Your task to perform on an android device: change text size in settings app Image 0: 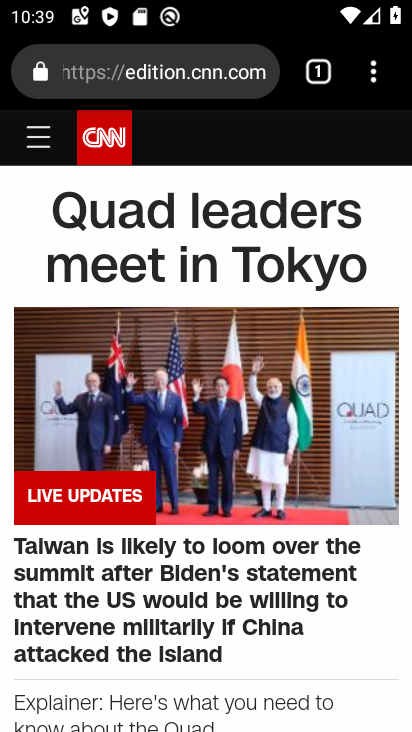
Step 0: press back button
Your task to perform on an android device: change text size in settings app Image 1: 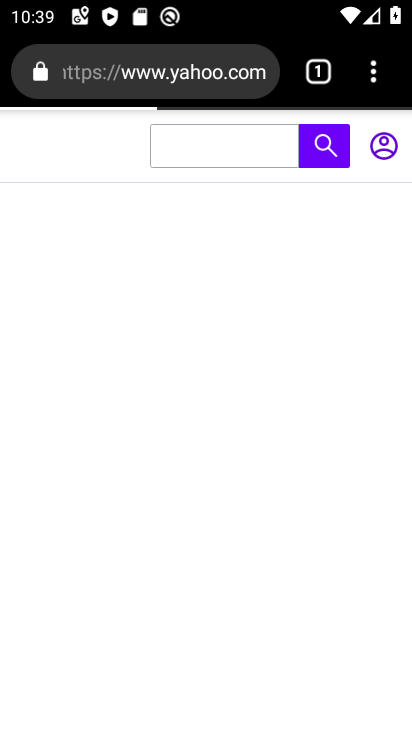
Step 1: press home button
Your task to perform on an android device: change text size in settings app Image 2: 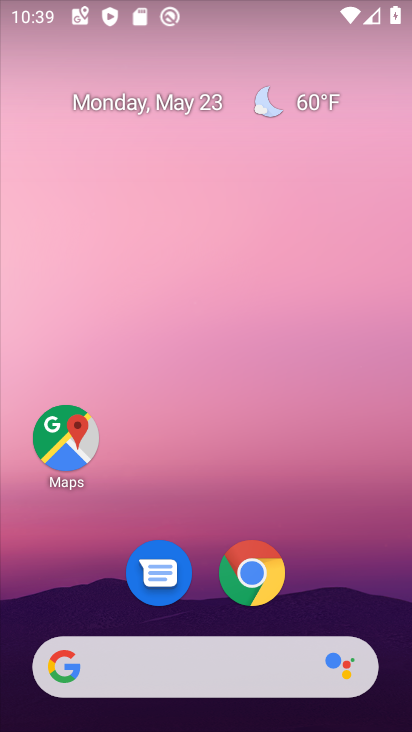
Step 2: drag from (301, 424) to (241, 3)
Your task to perform on an android device: change text size in settings app Image 3: 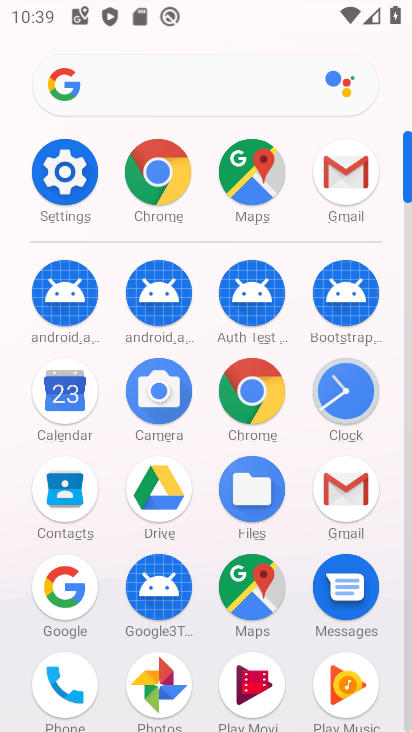
Step 3: drag from (9, 577) to (8, 190)
Your task to perform on an android device: change text size in settings app Image 4: 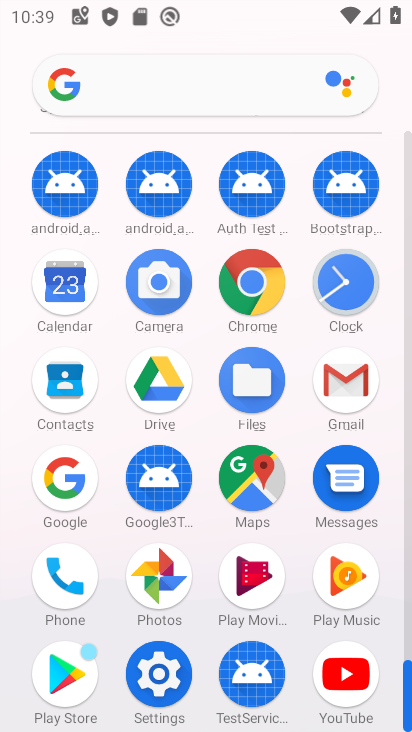
Step 4: click (159, 672)
Your task to perform on an android device: change text size in settings app Image 5: 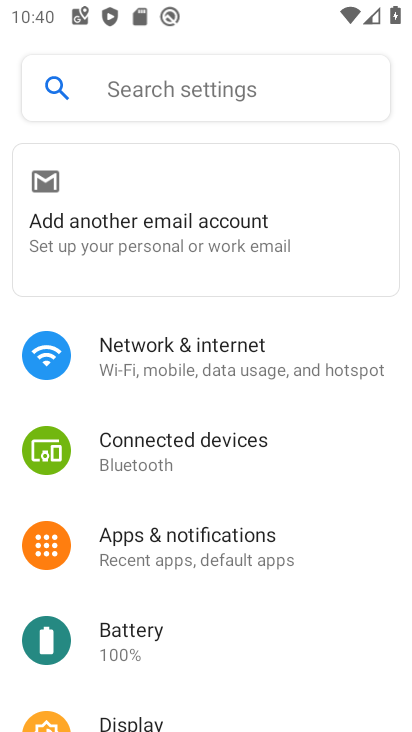
Step 5: drag from (239, 529) to (274, 183)
Your task to perform on an android device: change text size in settings app Image 6: 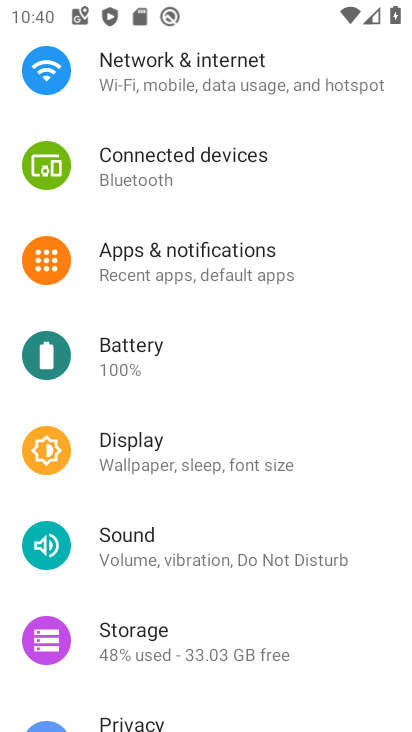
Step 6: click (176, 457)
Your task to perform on an android device: change text size in settings app Image 7: 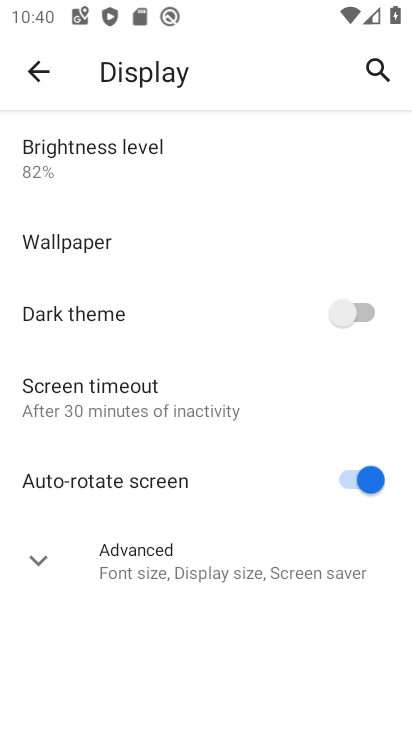
Step 7: click (85, 543)
Your task to perform on an android device: change text size in settings app Image 8: 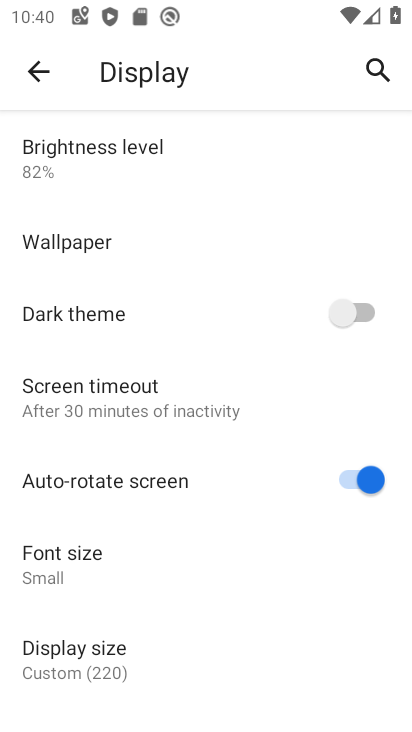
Step 8: click (129, 556)
Your task to perform on an android device: change text size in settings app Image 9: 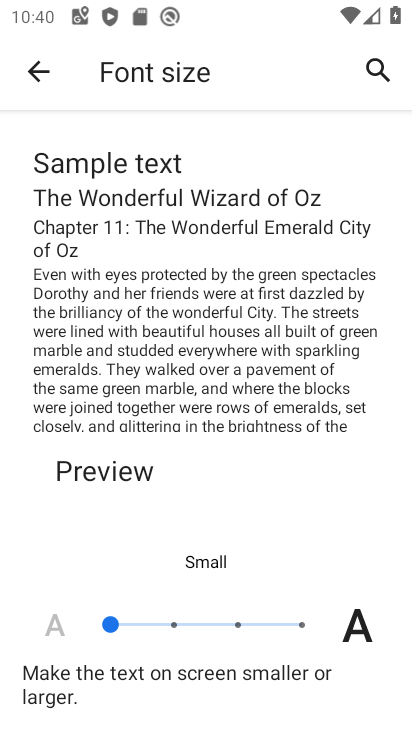
Step 9: click (222, 617)
Your task to perform on an android device: change text size in settings app Image 10: 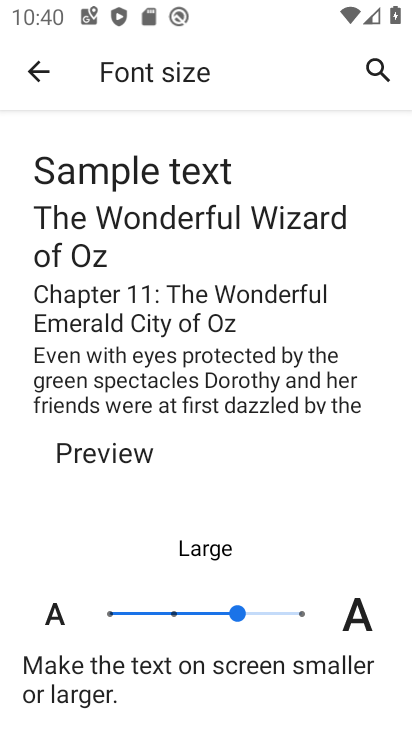
Step 10: task complete